Your task to perform on an android device: manage bookmarks in the chrome app Image 0: 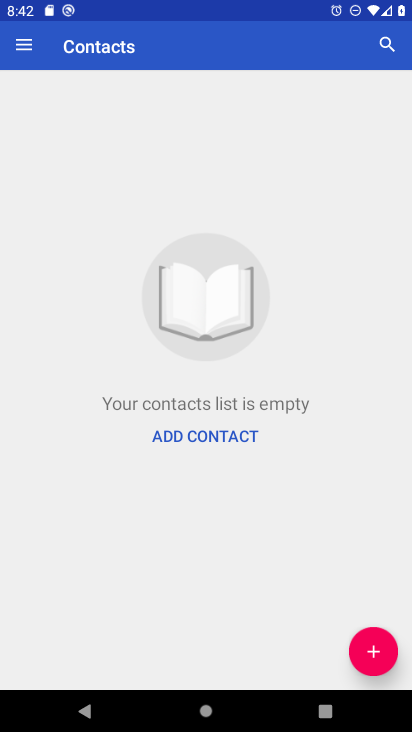
Step 0: press home button
Your task to perform on an android device: manage bookmarks in the chrome app Image 1: 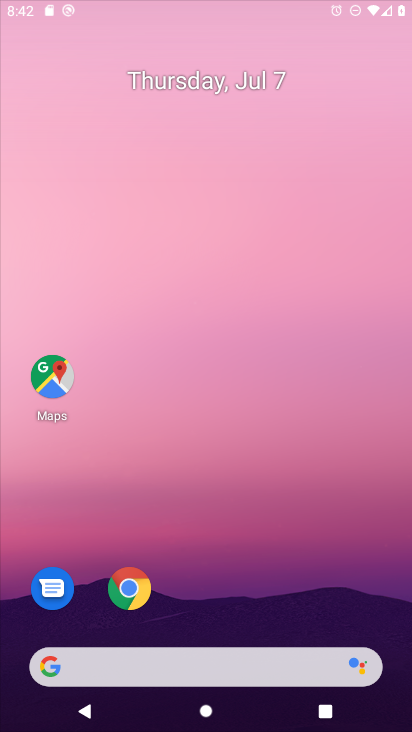
Step 1: drag from (198, 562) to (200, 239)
Your task to perform on an android device: manage bookmarks in the chrome app Image 2: 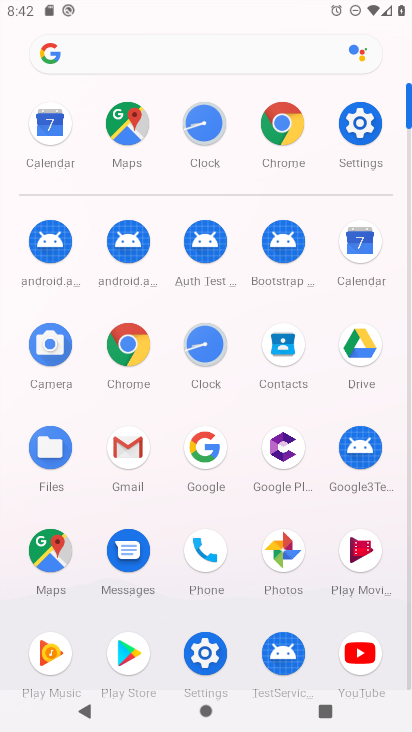
Step 2: click (267, 131)
Your task to perform on an android device: manage bookmarks in the chrome app Image 3: 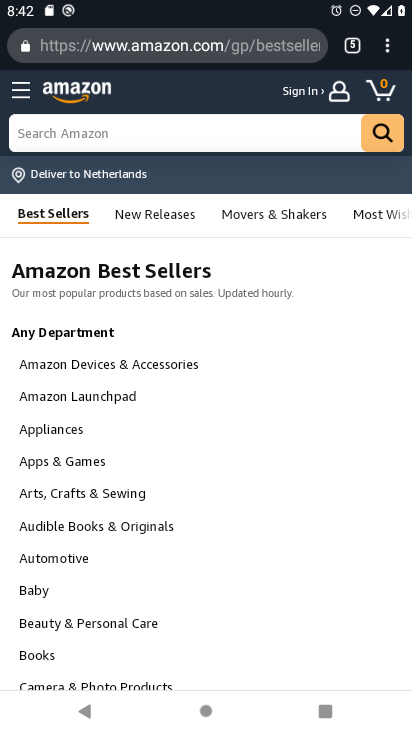
Step 3: click (400, 48)
Your task to perform on an android device: manage bookmarks in the chrome app Image 4: 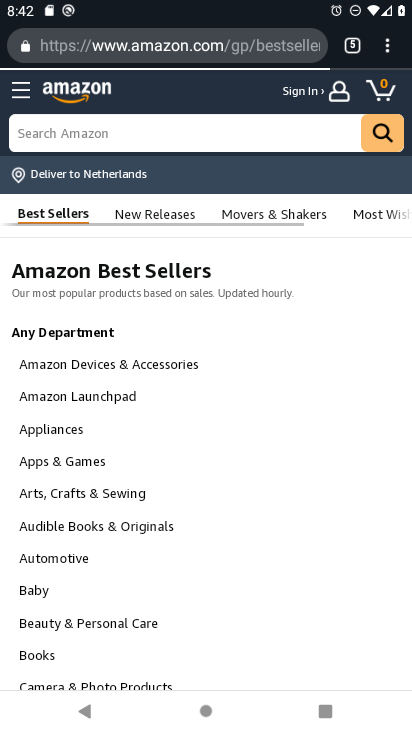
Step 4: click (399, 44)
Your task to perform on an android device: manage bookmarks in the chrome app Image 5: 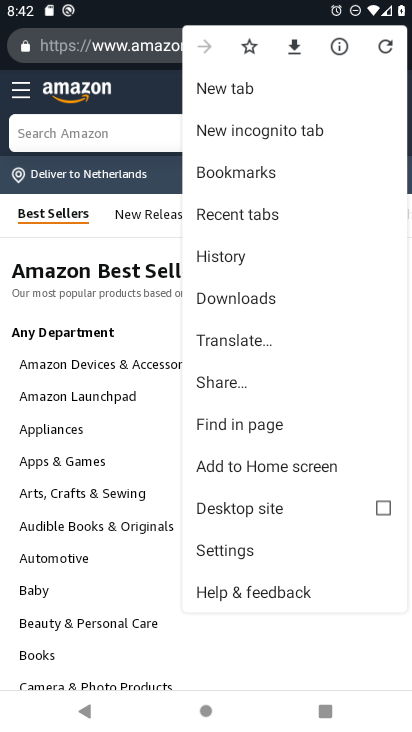
Step 5: click (228, 161)
Your task to perform on an android device: manage bookmarks in the chrome app Image 6: 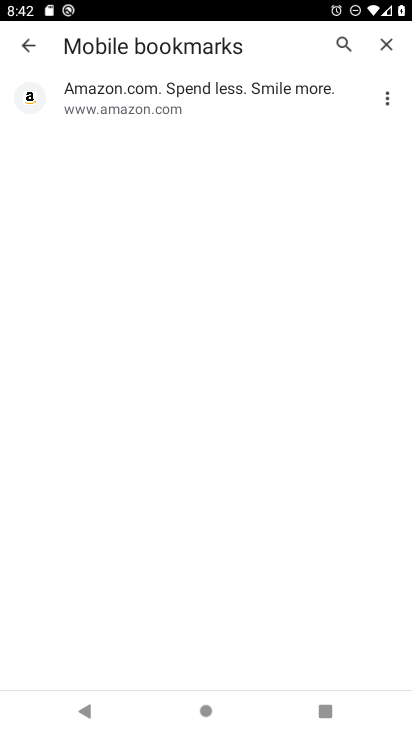
Step 6: click (137, 76)
Your task to perform on an android device: manage bookmarks in the chrome app Image 7: 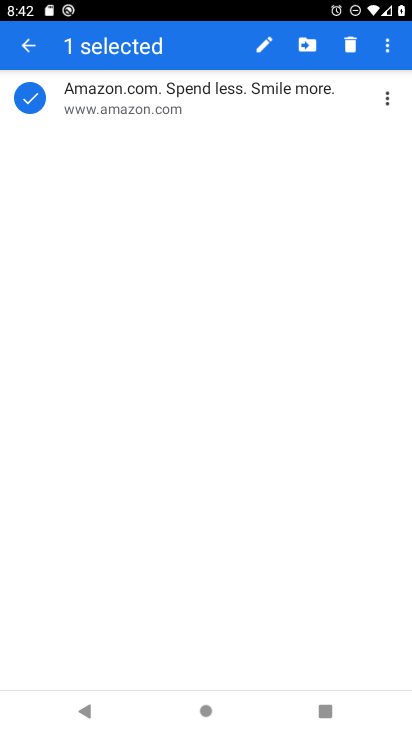
Step 7: click (308, 45)
Your task to perform on an android device: manage bookmarks in the chrome app Image 8: 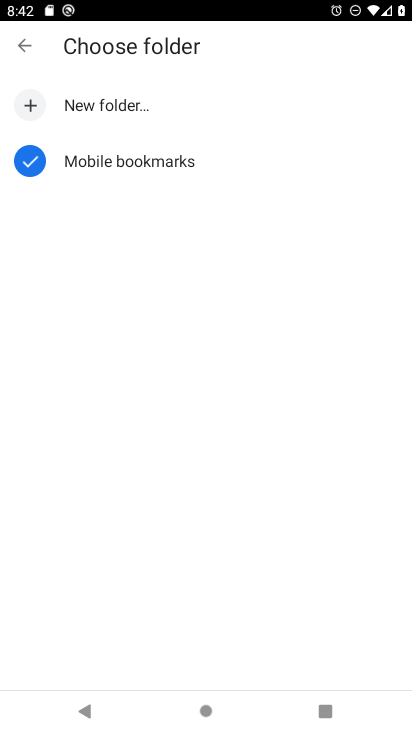
Step 8: click (146, 108)
Your task to perform on an android device: manage bookmarks in the chrome app Image 9: 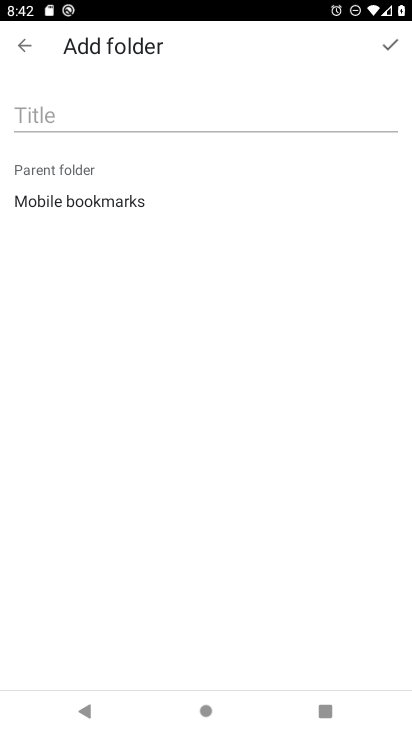
Step 9: type "gfgfgfgfgfg "
Your task to perform on an android device: manage bookmarks in the chrome app Image 10: 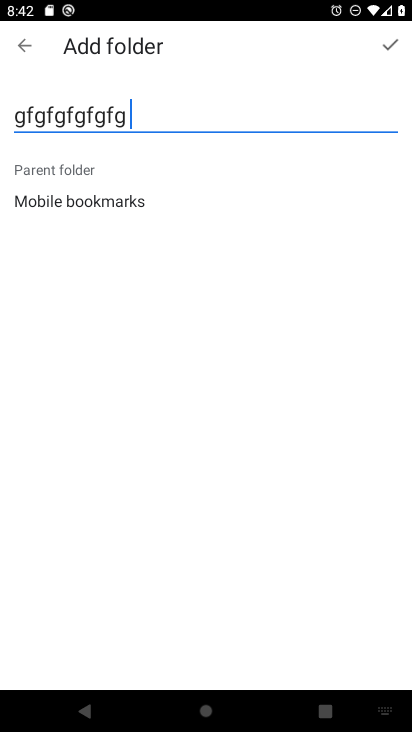
Step 10: click (391, 37)
Your task to perform on an android device: manage bookmarks in the chrome app Image 11: 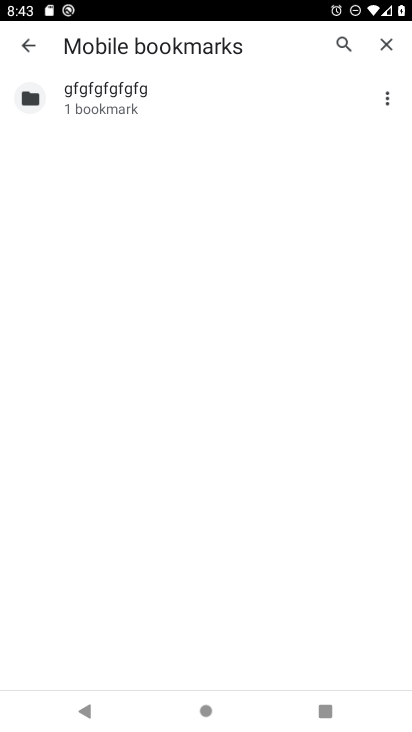
Step 11: task complete